Your task to perform on an android device: Open Google Chrome Image 0: 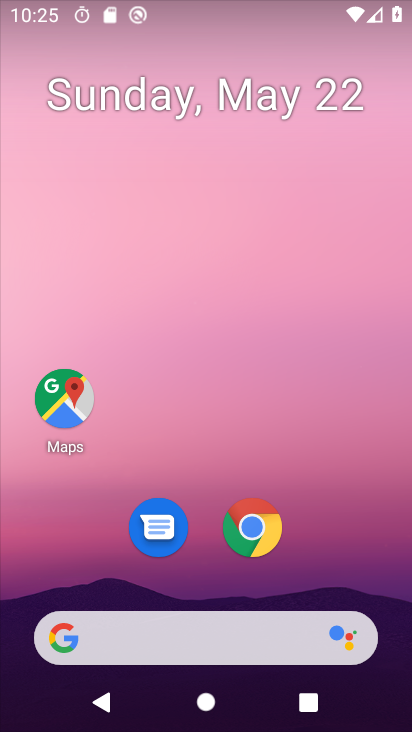
Step 0: drag from (257, 639) to (268, 82)
Your task to perform on an android device: Open Google Chrome Image 1: 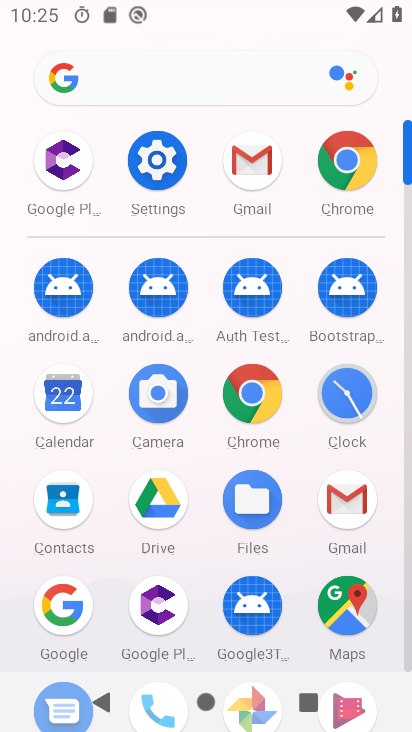
Step 1: click (348, 190)
Your task to perform on an android device: Open Google Chrome Image 2: 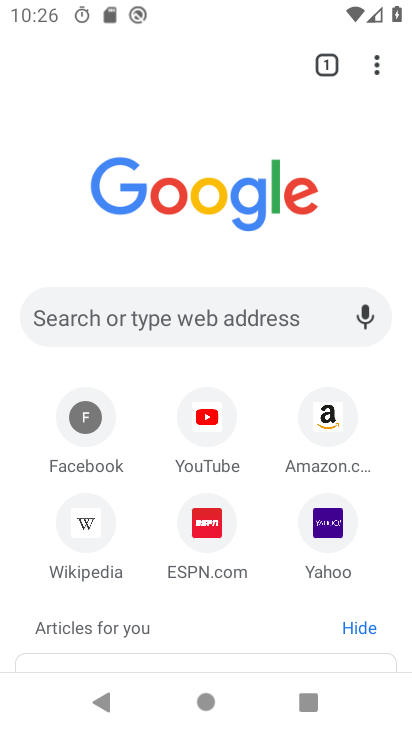
Step 2: task complete